Your task to perform on an android device: Go to network settings Image 0: 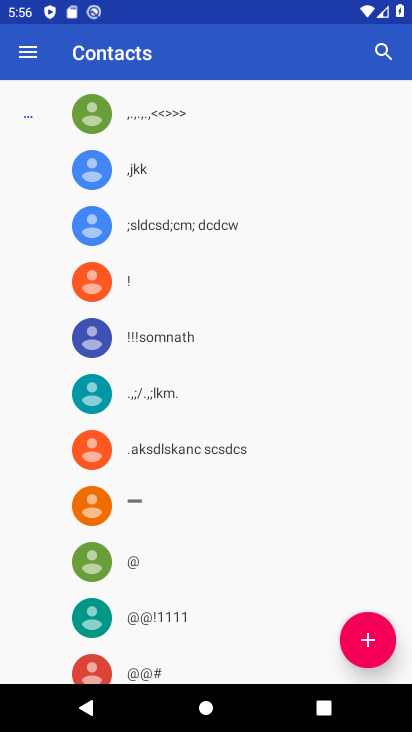
Step 0: press home button
Your task to perform on an android device: Go to network settings Image 1: 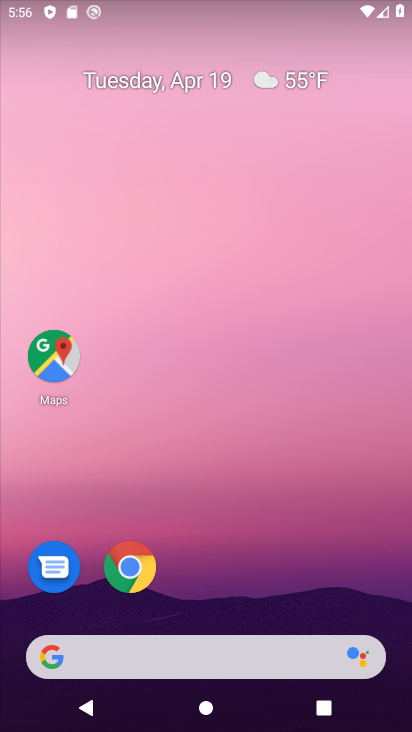
Step 1: drag from (259, 580) to (337, 62)
Your task to perform on an android device: Go to network settings Image 2: 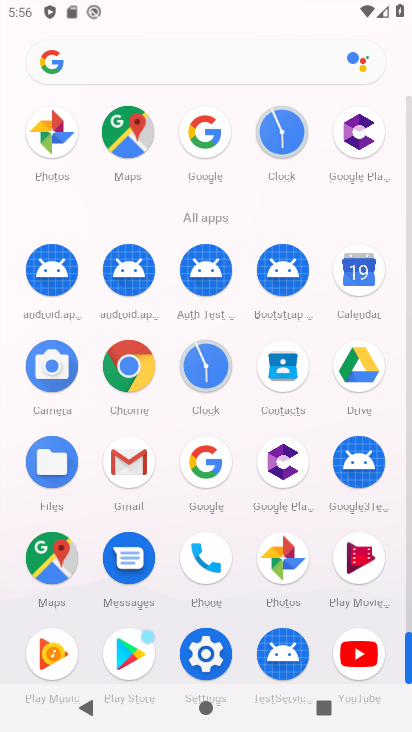
Step 2: click (195, 635)
Your task to perform on an android device: Go to network settings Image 3: 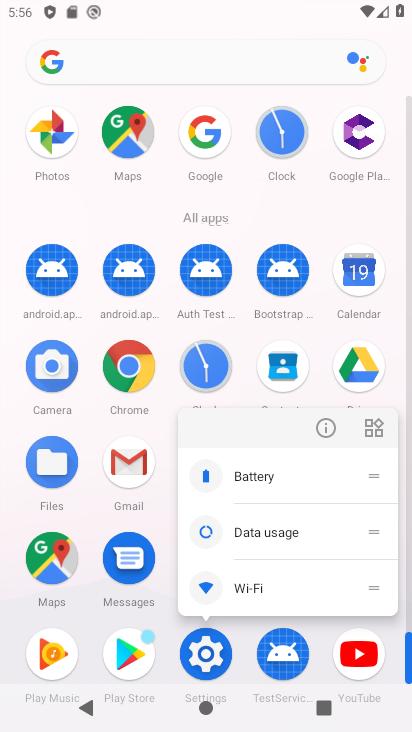
Step 3: click (194, 634)
Your task to perform on an android device: Go to network settings Image 4: 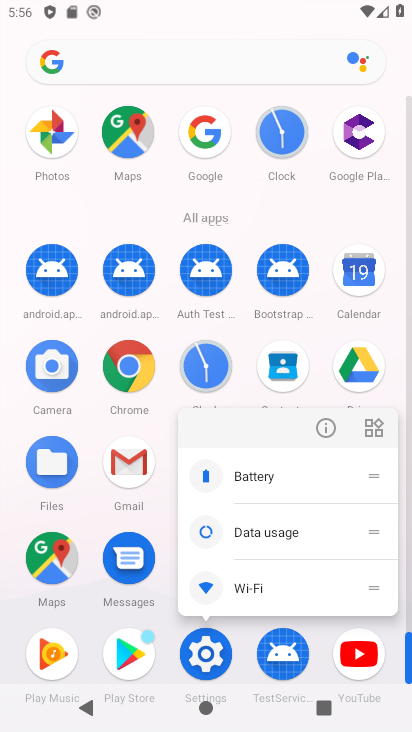
Step 4: click (199, 652)
Your task to perform on an android device: Go to network settings Image 5: 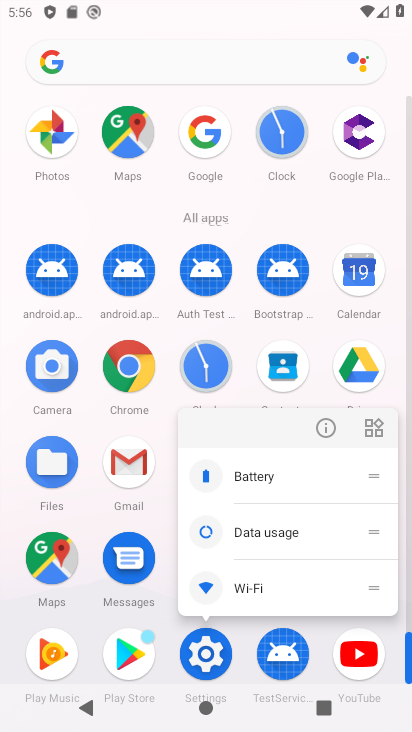
Step 5: click (199, 653)
Your task to perform on an android device: Go to network settings Image 6: 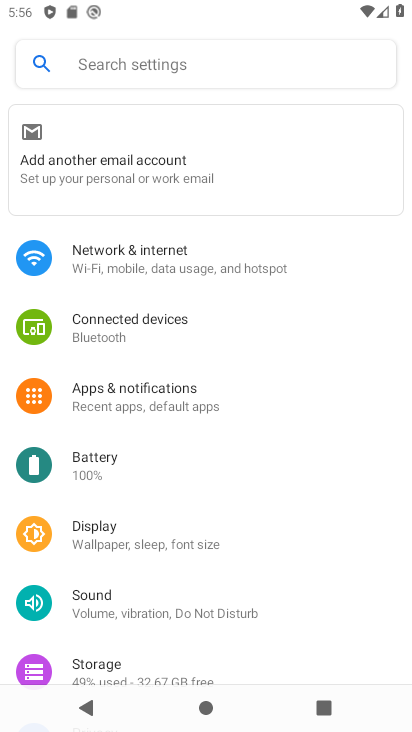
Step 6: click (211, 267)
Your task to perform on an android device: Go to network settings Image 7: 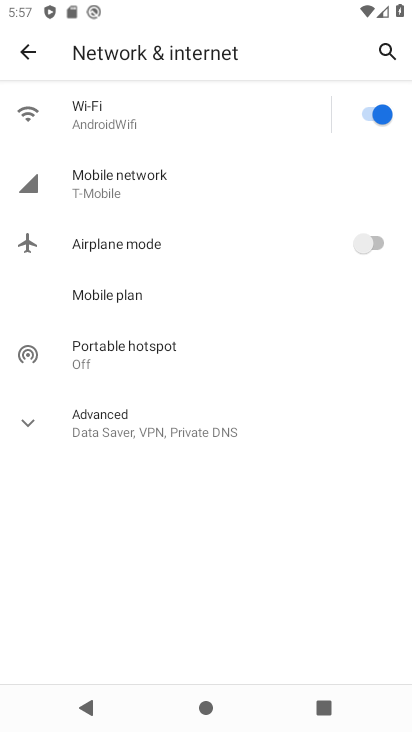
Step 7: click (160, 178)
Your task to perform on an android device: Go to network settings Image 8: 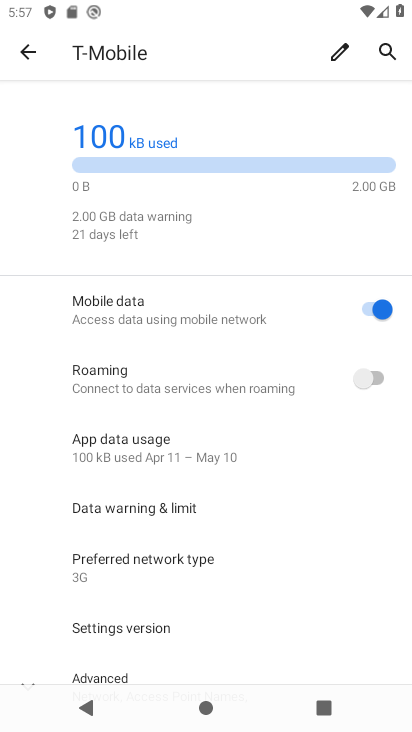
Step 8: task complete